Your task to perform on an android device: What's the weather going to be this weekend? Image 0: 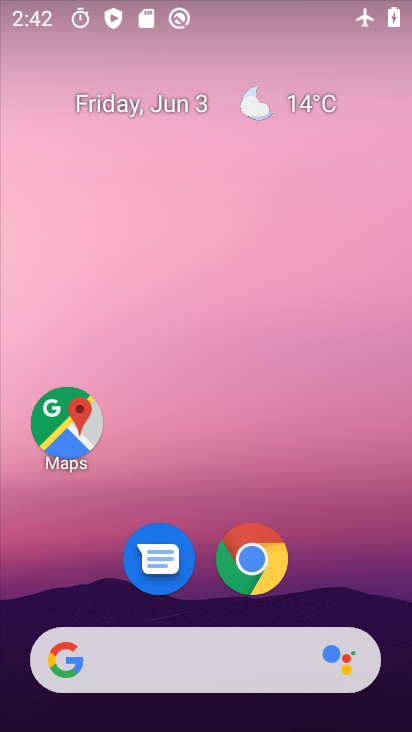
Step 0: click (245, 651)
Your task to perform on an android device: What's the weather going to be this weekend? Image 1: 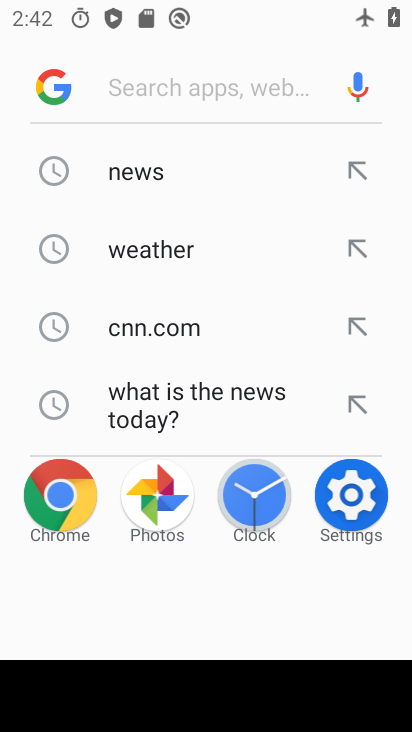
Step 1: click (135, 248)
Your task to perform on an android device: What's the weather going to be this weekend? Image 2: 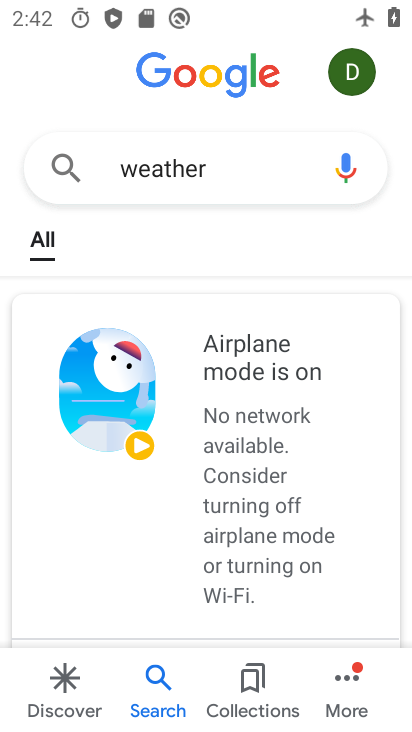
Step 2: task complete